Your task to perform on an android device: Go to wifi settings Image 0: 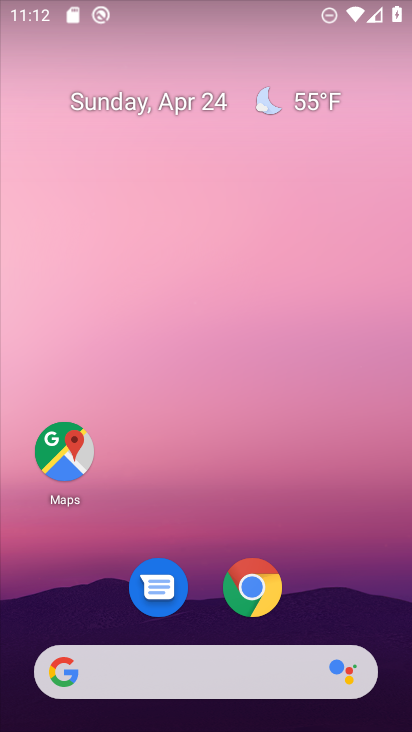
Step 0: drag from (379, 458) to (380, 229)
Your task to perform on an android device: Go to wifi settings Image 1: 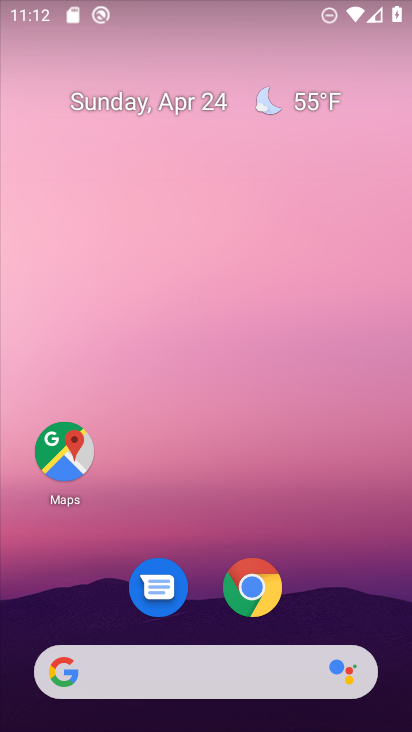
Step 1: drag from (368, 550) to (381, 119)
Your task to perform on an android device: Go to wifi settings Image 2: 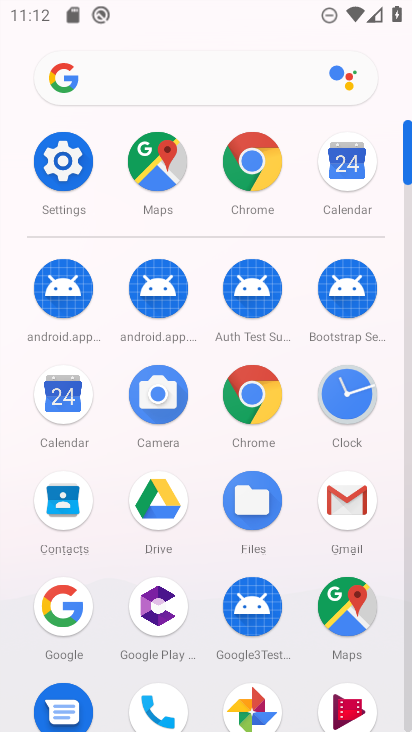
Step 2: click (89, 136)
Your task to perform on an android device: Go to wifi settings Image 3: 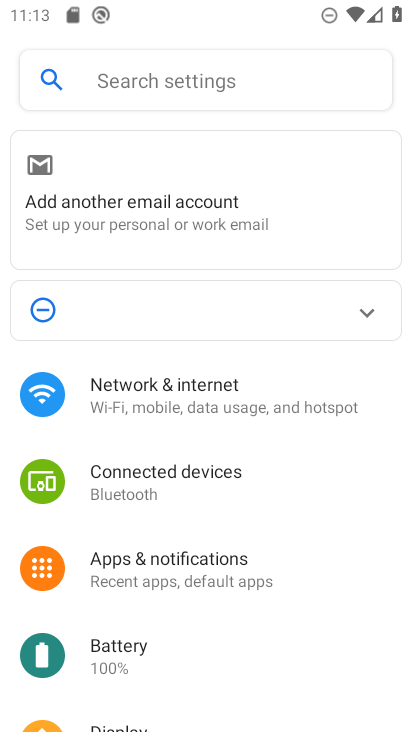
Step 3: click (161, 381)
Your task to perform on an android device: Go to wifi settings Image 4: 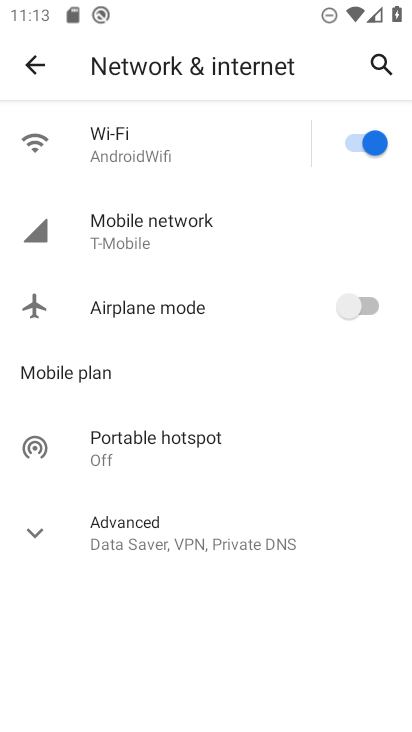
Step 4: click (216, 135)
Your task to perform on an android device: Go to wifi settings Image 5: 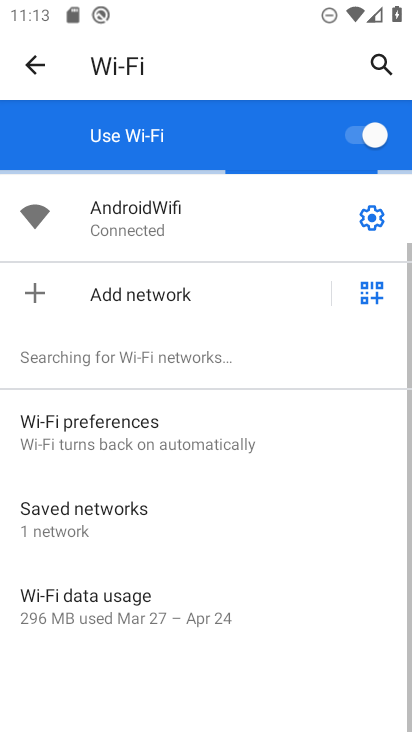
Step 5: click (374, 214)
Your task to perform on an android device: Go to wifi settings Image 6: 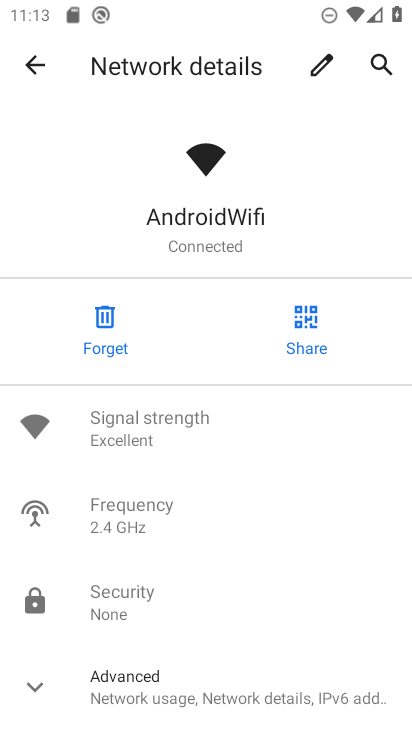
Step 6: task complete